Your task to perform on an android device: Open maps Image 0: 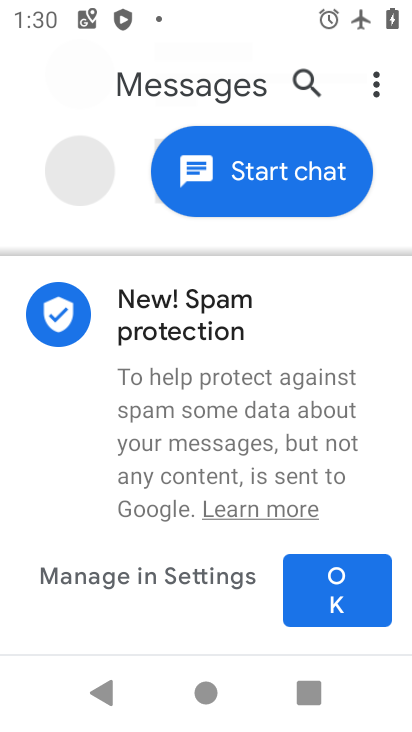
Step 0: press home button
Your task to perform on an android device: Open maps Image 1: 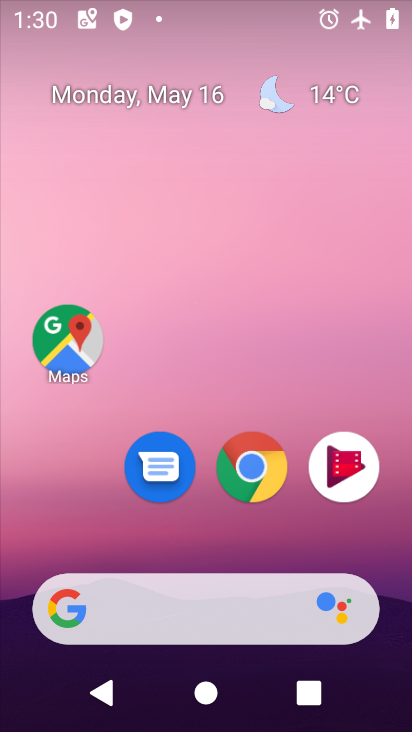
Step 1: drag from (278, 587) to (281, 260)
Your task to perform on an android device: Open maps Image 2: 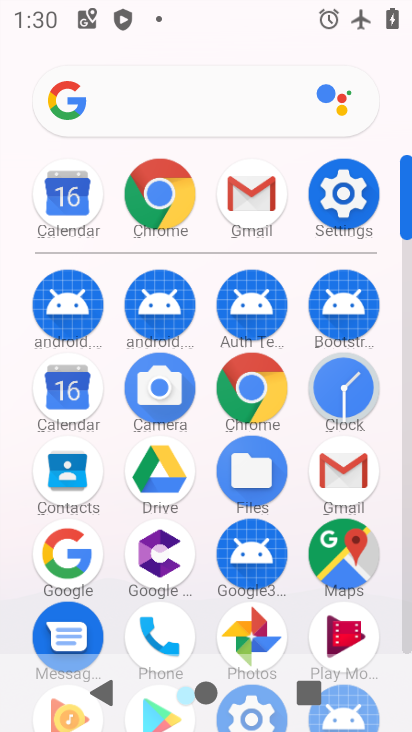
Step 2: click (342, 545)
Your task to perform on an android device: Open maps Image 3: 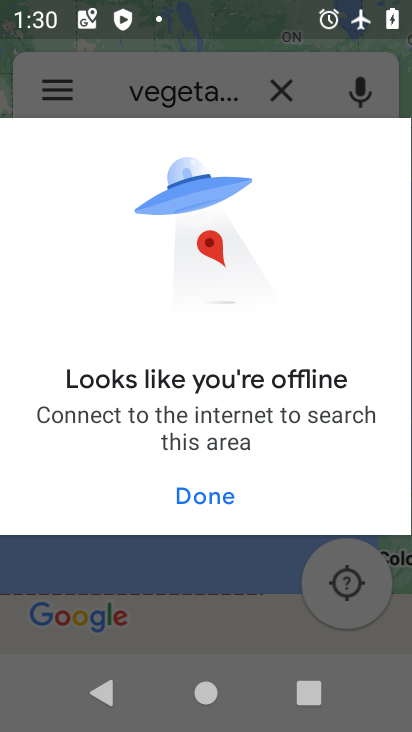
Step 3: task complete